Your task to perform on an android device: open wifi settings Image 0: 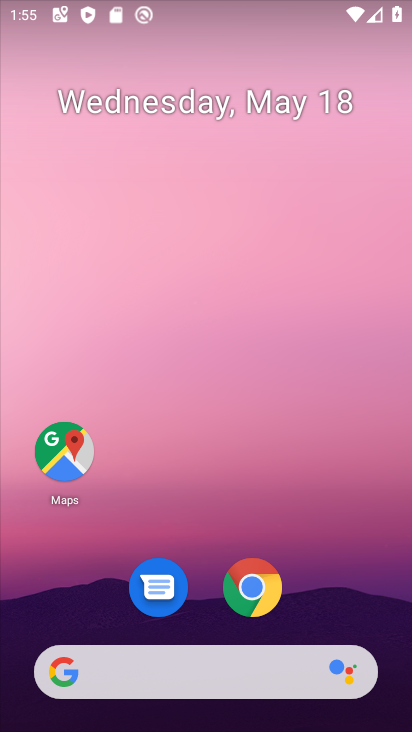
Step 0: drag from (380, 558) to (361, 0)
Your task to perform on an android device: open wifi settings Image 1: 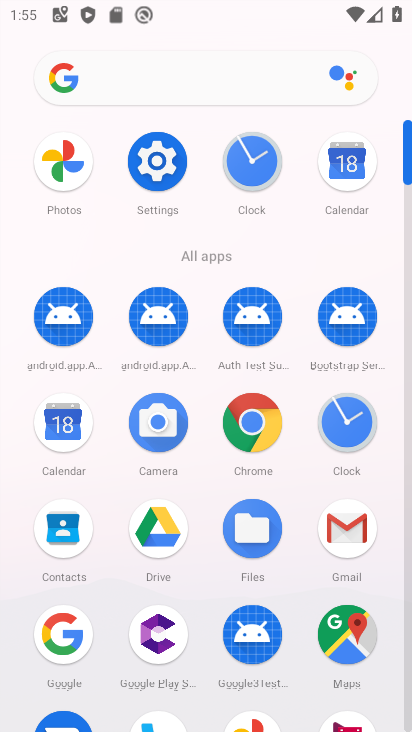
Step 1: click (154, 171)
Your task to perform on an android device: open wifi settings Image 2: 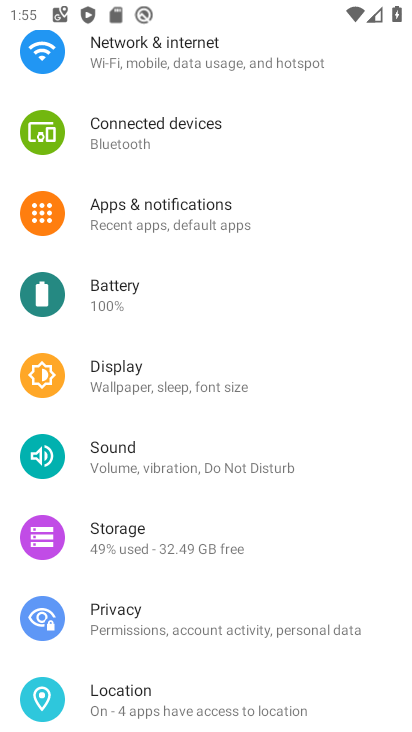
Step 2: click (154, 68)
Your task to perform on an android device: open wifi settings Image 3: 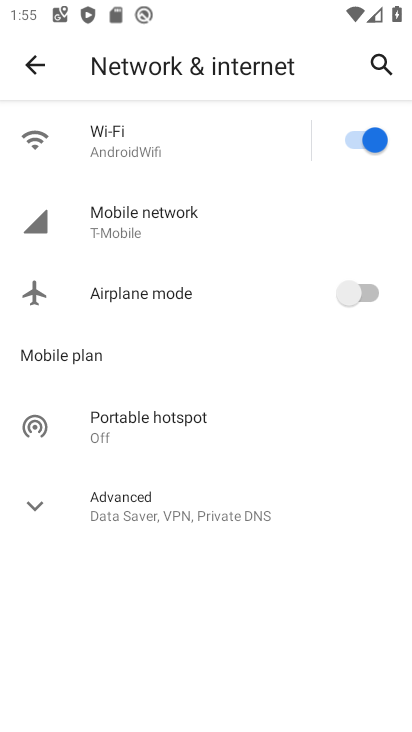
Step 3: click (88, 140)
Your task to perform on an android device: open wifi settings Image 4: 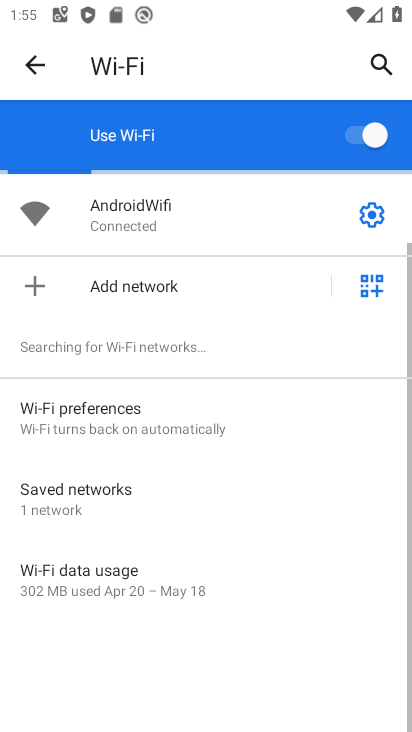
Step 4: task complete